Your task to perform on an android device: turn smart compose on in the gmail app Image 0: 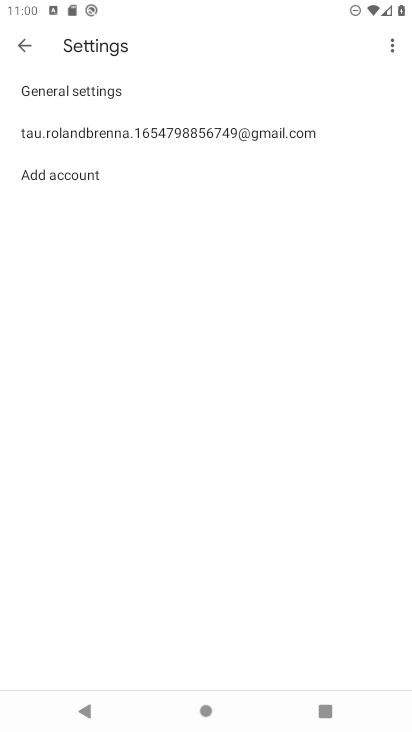
Step 0: press back button
Your task to perform on an android device: turn smart compose on in the gmail app Image 1: 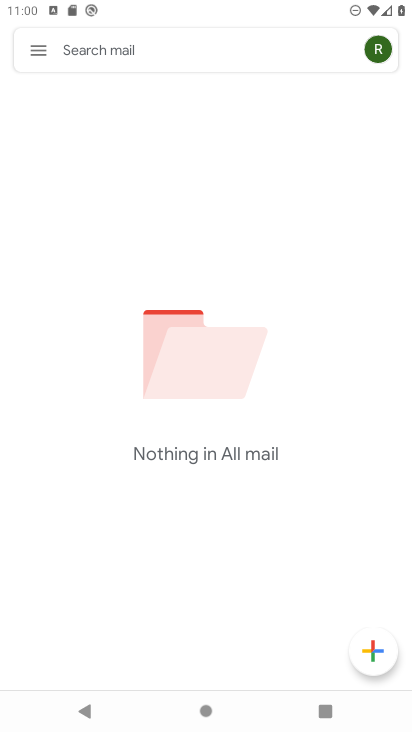
Step 1: click (34, 49)
Your task to perform on an android device: turn smart compose on in the gmail app Image 2: 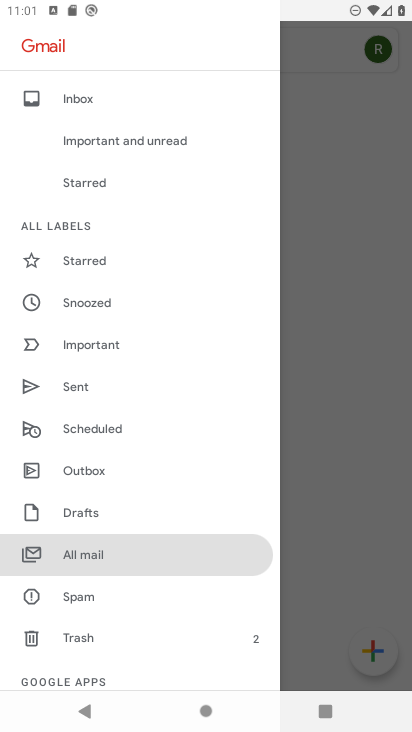
Step 2: drag from (167, 624) to (198, 191)
Your task to perform on an android device: turn smart compose on in the gmail app Image 3: 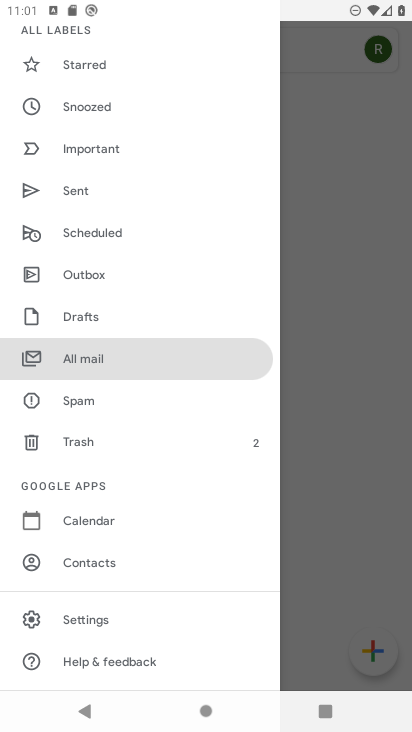
Step 3: click (78, 622)
Your task to perform on an android device: turn smart compose on in the gmail app Image 4: 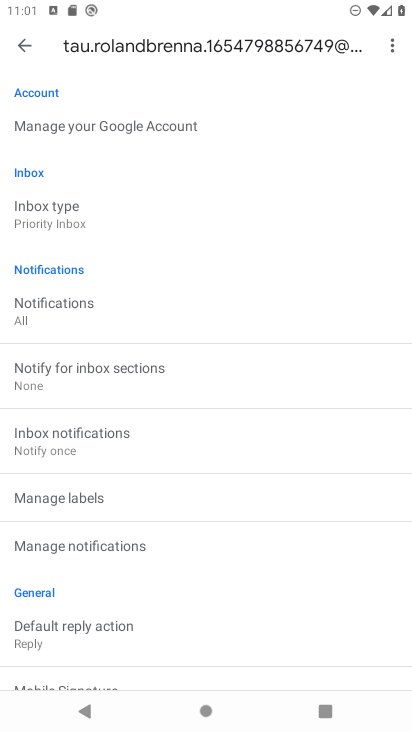
Step 4: task complete